Your task to perform on an android device: turn on translation in the chrome app Image 0: 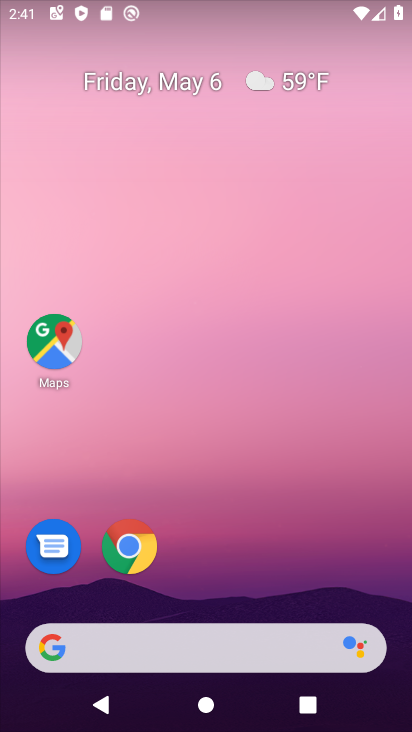
Step 0: click (126, 550)
Your task to perform on an android device: turn on translation in the chrome app Image 1: 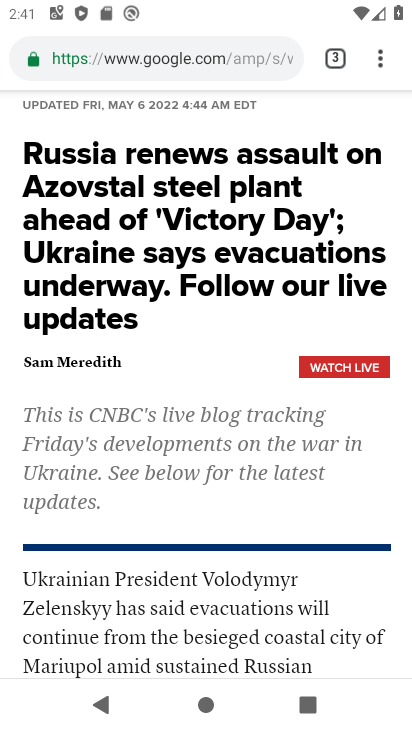
Step 1: click (385, 61)
Your task to perform on an android device: turn on translation in the chrome app Image 2: 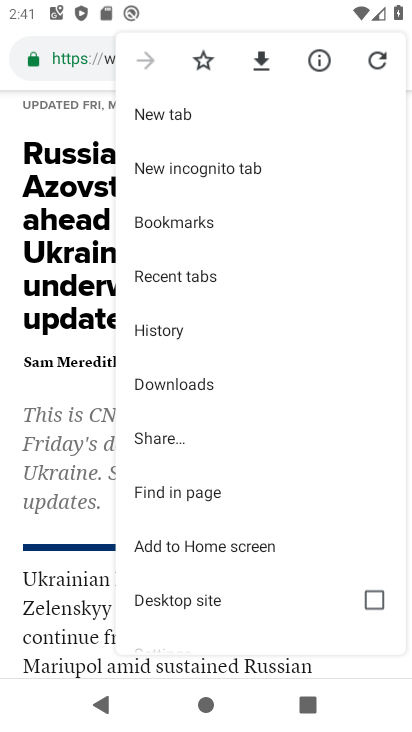
Step 2: drag from (217, 597) to (228, 271)
Your task to perform on an android device: turn on translation in the chrome app Image 3: 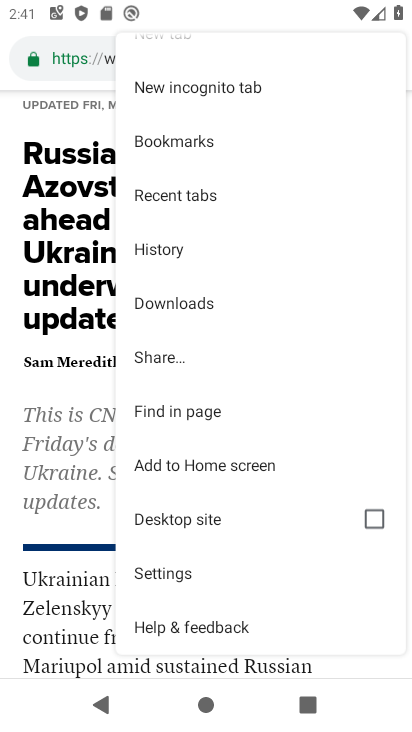
Step 3: click (196, 573)
Your task to perform on an android device: turn on translation in the chrome app Image 4: 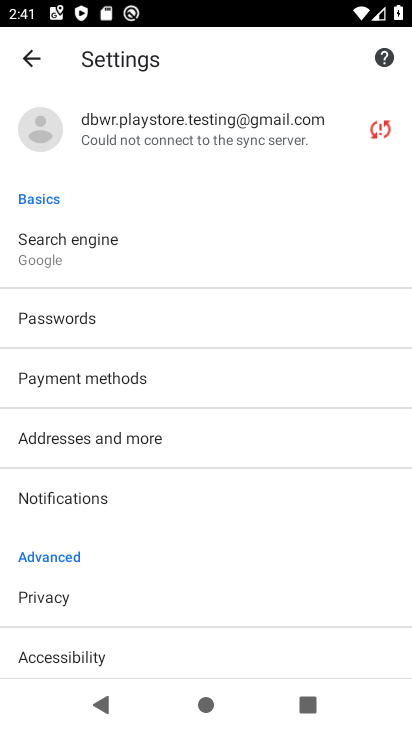
Step 4: drag from (203, 547) to (204, 262)
Your task to perform on an android device: turn on translation in the chrome app Image 5: 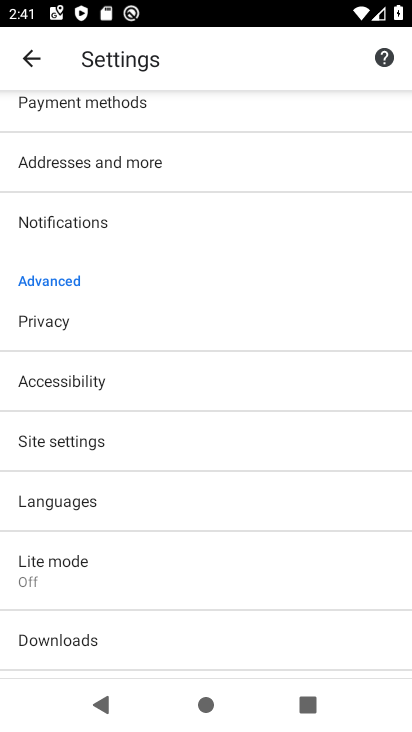
Step 5: click (112, 492)
Your task to perform on an android device: turn on translation in the chrome app Image 6: 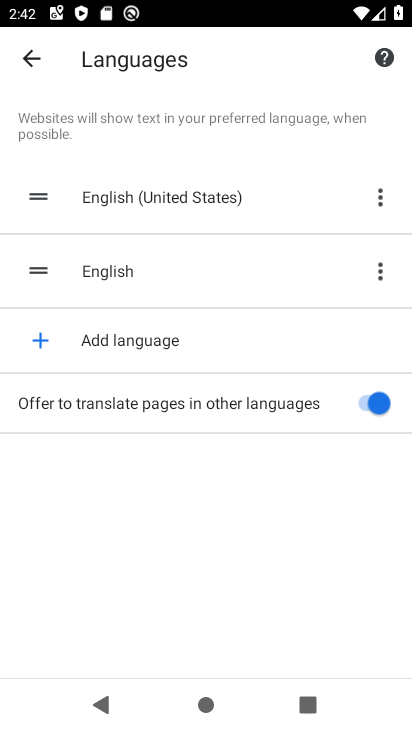
Step 6: task complete